Your task to perform on an android device: Open network settings Image 0: 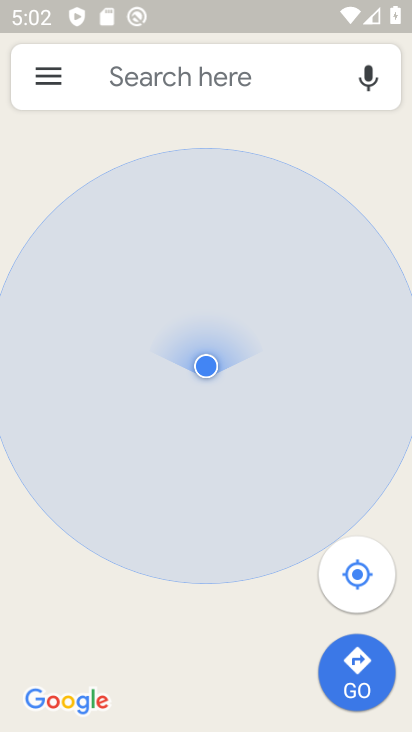
Step 0: press home button
Your task to perform on an android device: Open network settings Image 1: 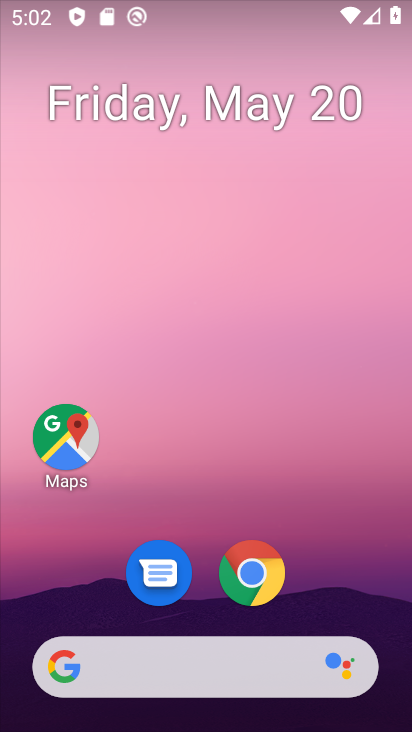
Step 1: drag from (320, 477) to (220, 45)
Your task to perform on an android device: Open network settings Image 2: 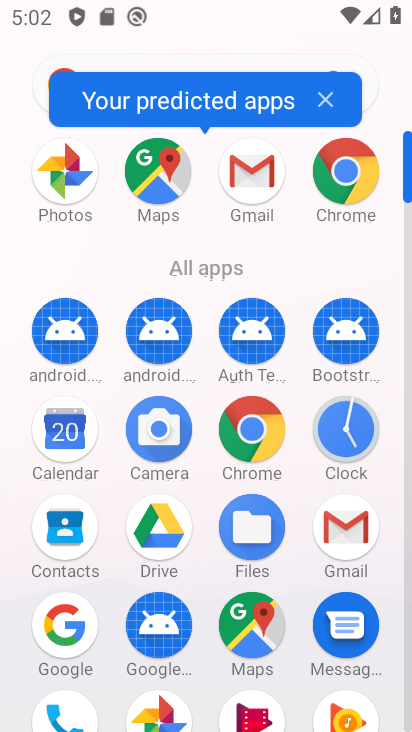
Step 2: drag from (232, 648) to (186, 233)
Your task to perform on an android device: Open network settings Image 3: 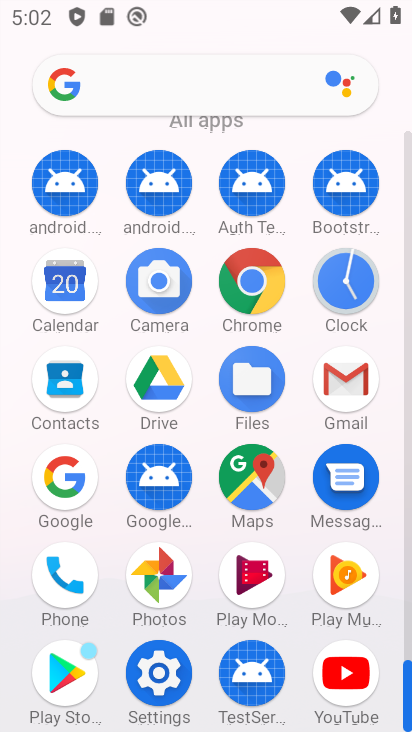
Step 3: click (176, 673)
Your task to perform on an android device: Open network settings Image 4: 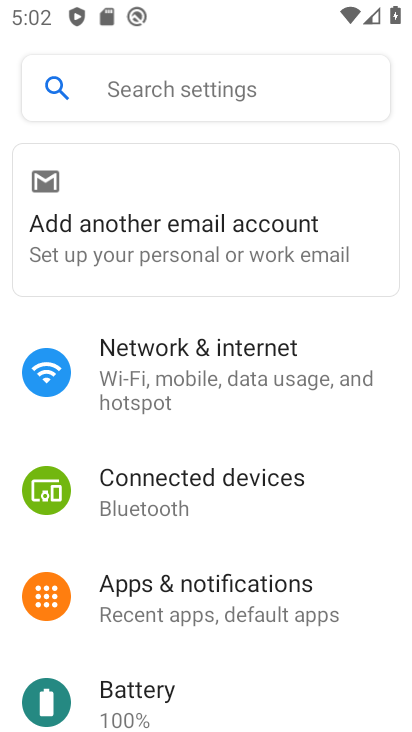
Step 4: click (262, 389)
Your task to perform on an android device: Open network settings Image 5: 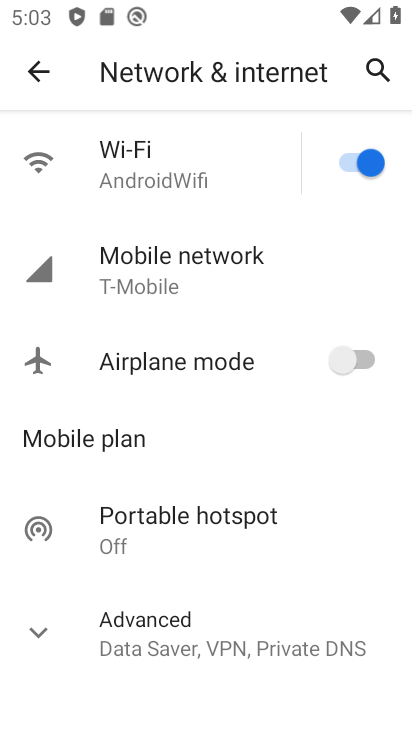
Step 5: task complete